Your task to perform on an android device: change alarm snooze length Image 0: 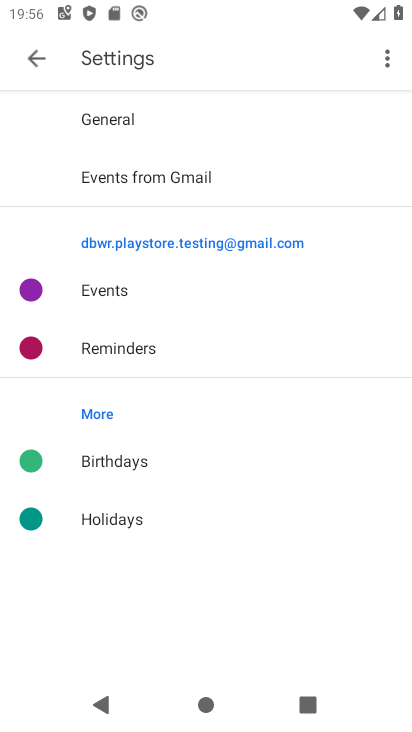
Step 0: press home button
Your task to perform on an android device: change alarm snooze length Image 1: 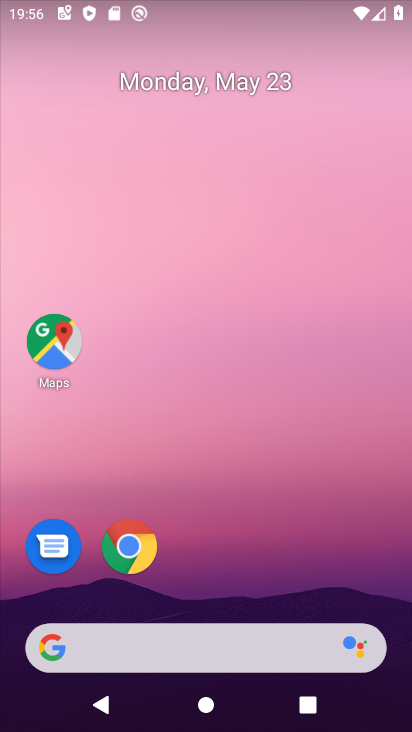
Step 1: drag from (351, 579) to (336, 131)
Your task to perform on an android device: change alarm snooze length Image 2: 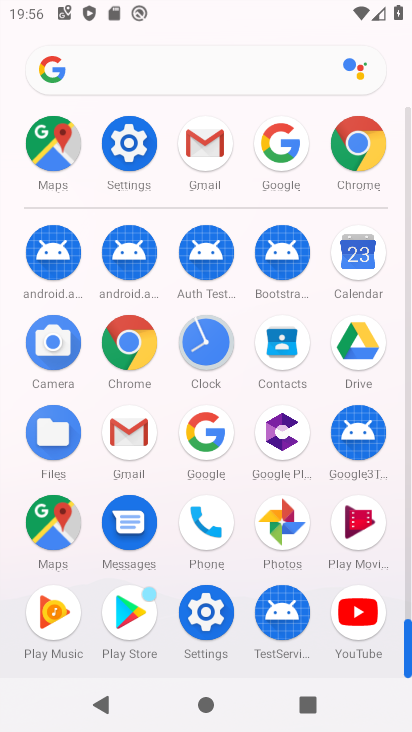
Step 2: click (210, 349)
Your task to perform on an android device: change alarm snooze length Image 3: 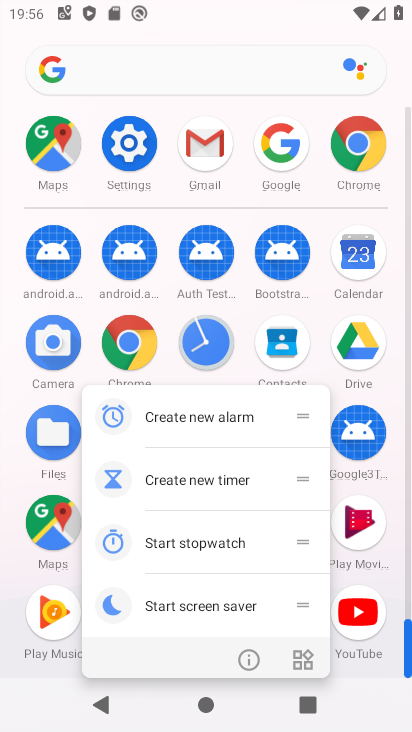
Step 3: click (210, 349)
Your task to perform on an android device: change alarm snooze length Image 4: 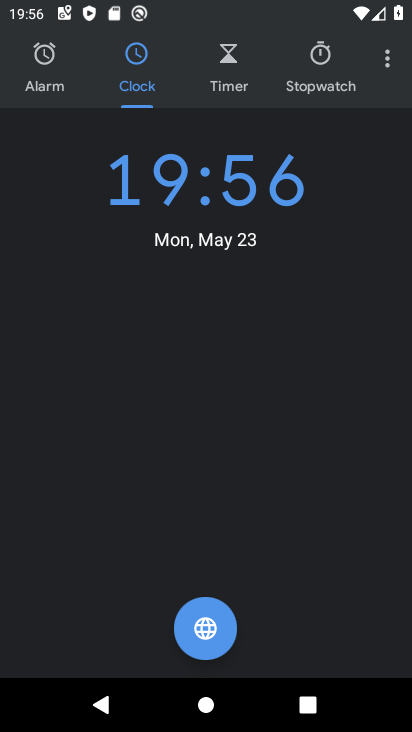
Step 4: click (389, 63)
Your task to perform on an android device: change alarm snooze length Image 5: 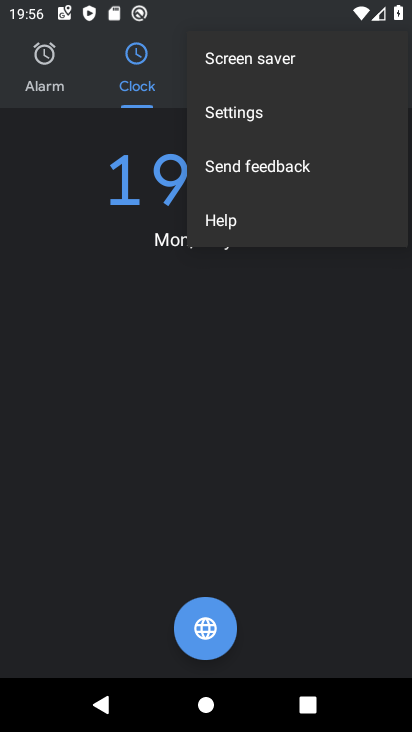
Step 5: click (289, 114)
Your task to perform on an android device: change alarm snooze length Image 6: 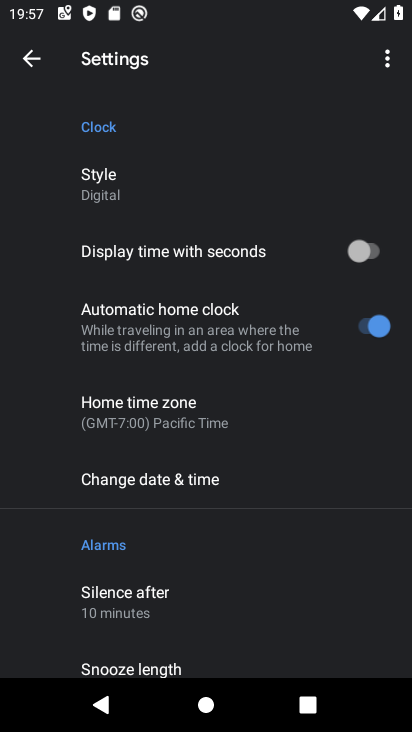
Step 6: drag from (296, 569) to (298, 411)
Your task to perform on an android device: change alarm snooze length Image 7: 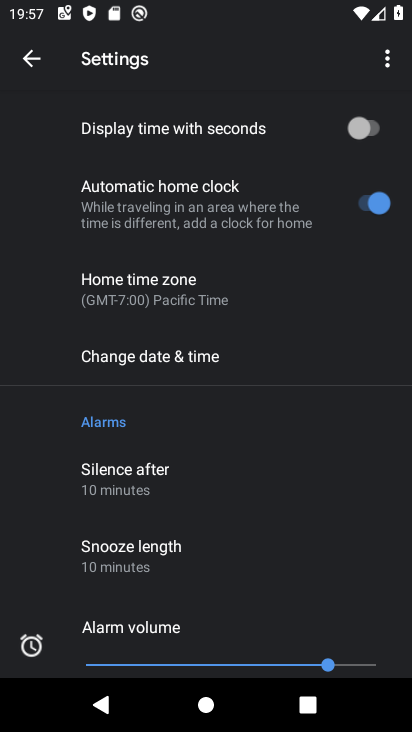
Step 7: drag from (316, 554) to (319, 442)
Your task to perform on an android device: change alarm snooze length Image 8: 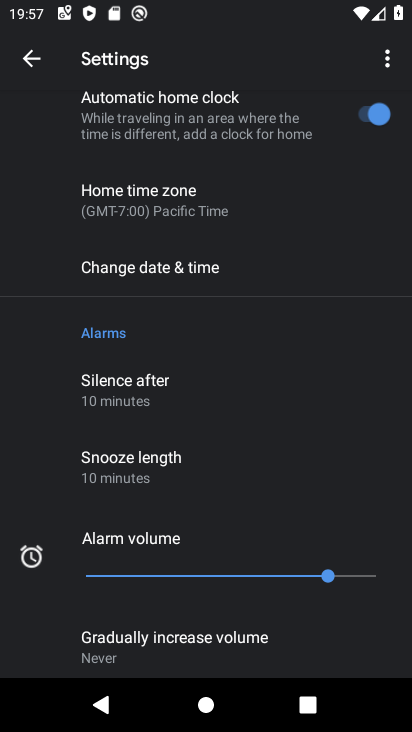
Step 8: drag from (322, 637) to (332, 493)
Your task to perform on an android device: change alarm snooze length Image 9: 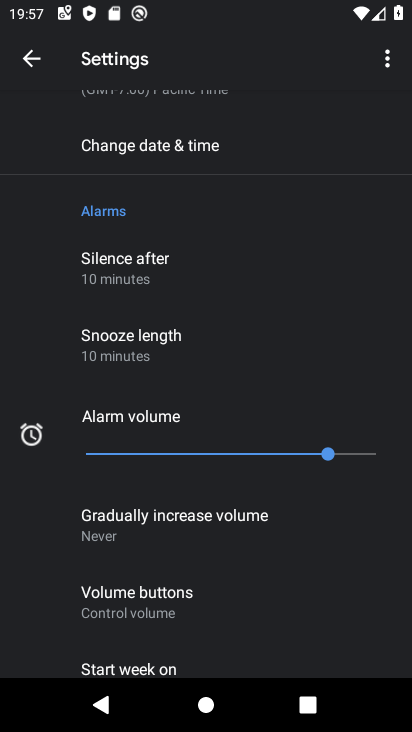
Step 9: drag from (320, 611) to (324, 511)
Your task to perform on an android device: change alarm snooze length Image 10: 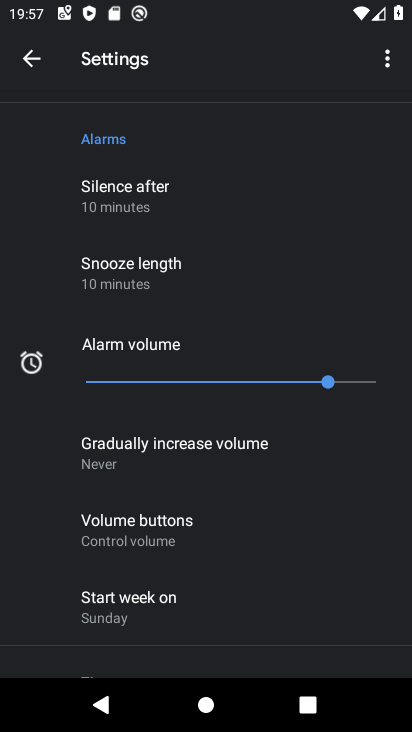
Step 10: drag from (305, 595) to (307, 540)
Your task to perform on an android device: change alarm snooze length Image 11: 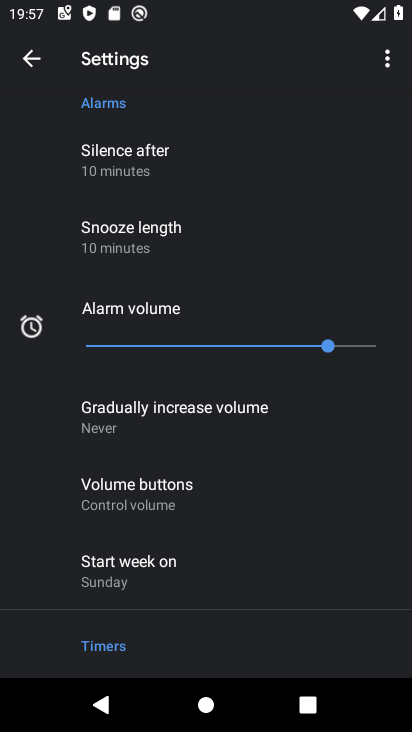
Step 11: drag from (312, 298) to (313, 421)
Your task to perform on an android device: change alarm snooze length Image 12: 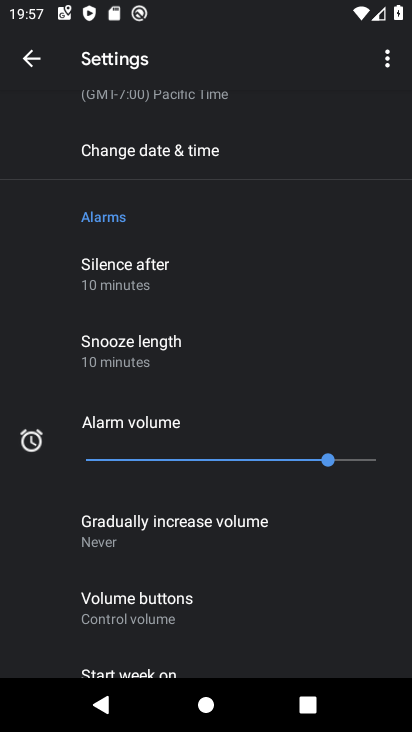
Step 12: drag from (312, 273) to (307, 384)
Your task to perform on an android device: change alarm snooze length Image 13: 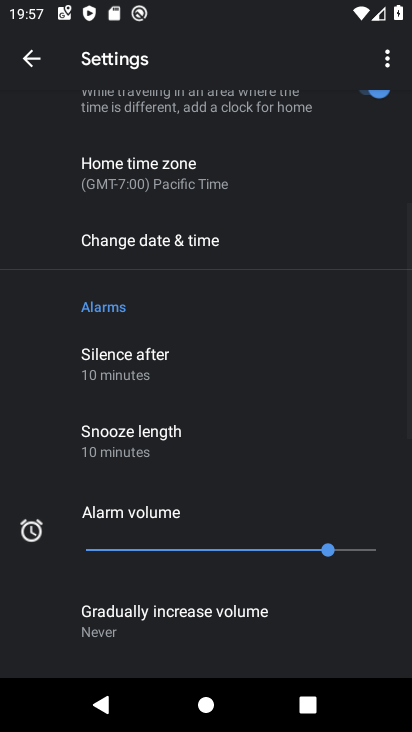
Step 13: click (189, 452)
Your task to perform on an android device: change alarm snooze length Image 14: 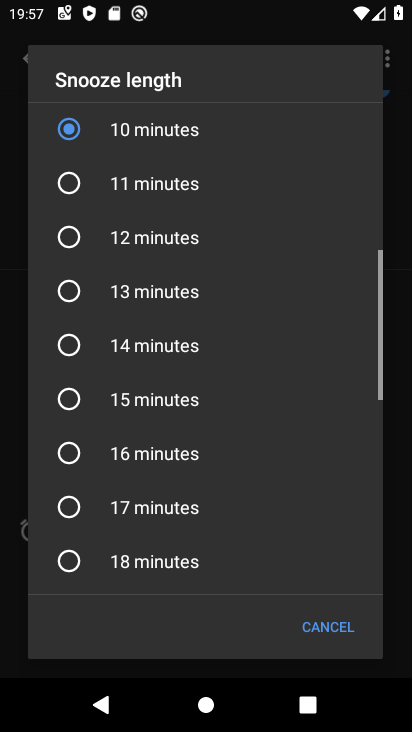
Step 14: click (189, 452)
Your task to perform on an android device: change alarm snooze length Image 15: 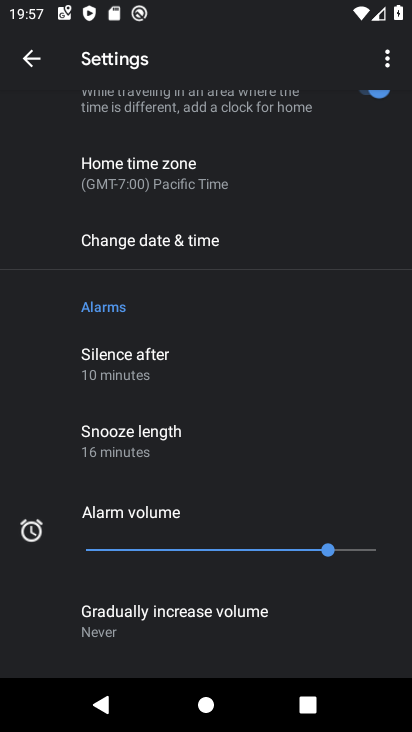
Step 15: task complete